Your task to perform on an android device: see tabs open on other devices in the chrome app Image 0: 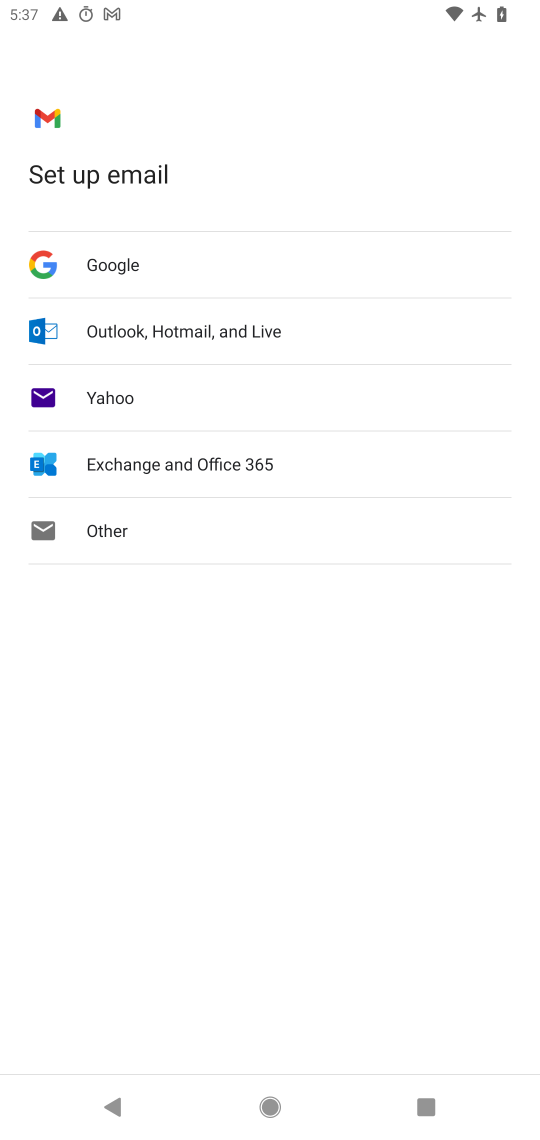
Step 0: press home button
Your task to perform on an android device: see tabs open on other devices in the chrome app Image 1: 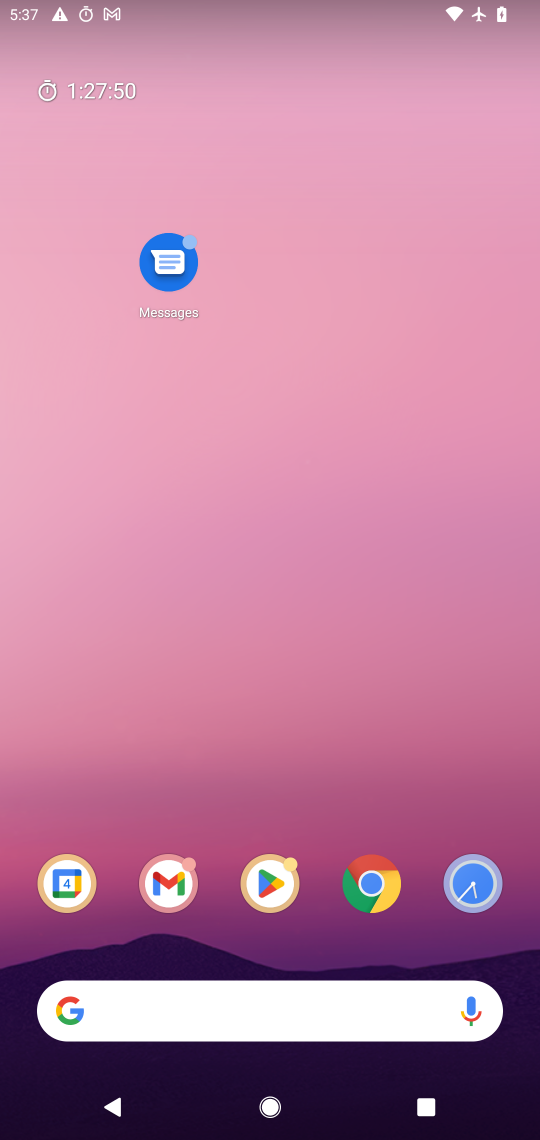
Step 1: click (369, 884)
Your task to perform on an android device: see tabs open on other devices in the chrome app Image 2: 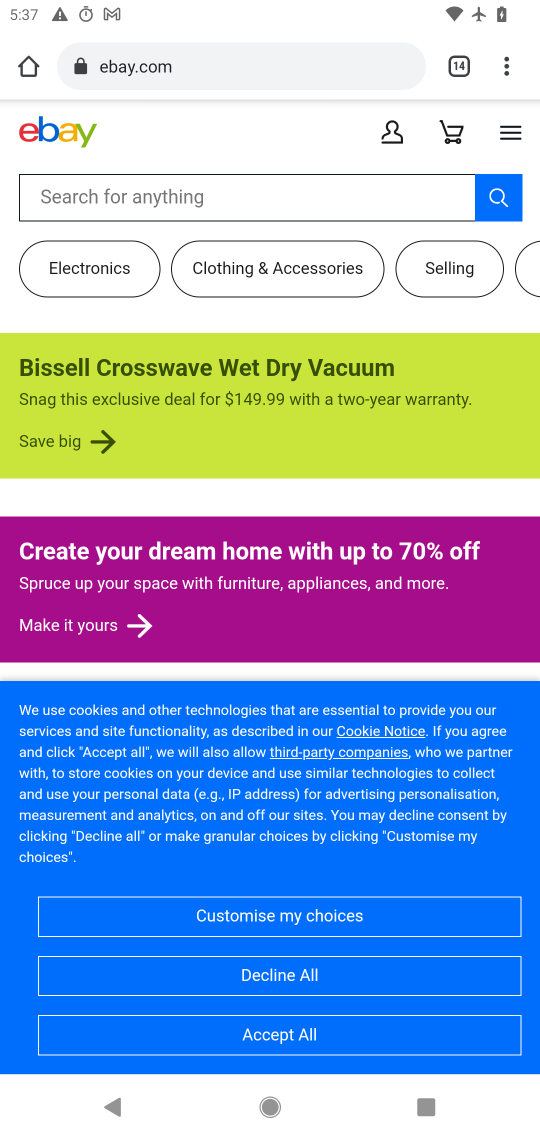
Step 2: click (504, 68)
Your task to perform on an android device: see tabs open on other devices in the chrome app Image 3: 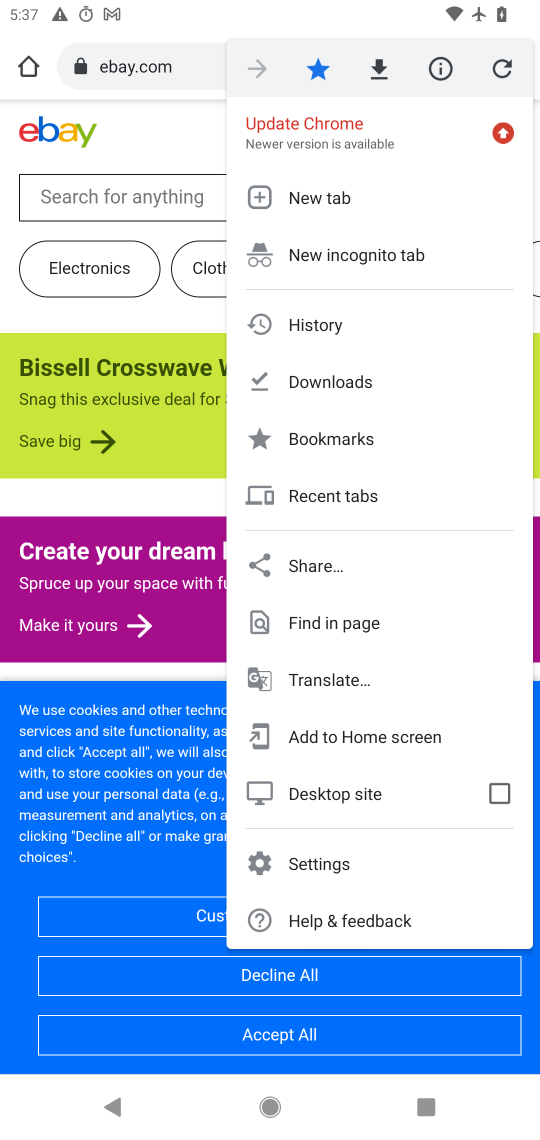
Step 3: click (338, 494)
Your task to perform on an android device: see tabs open on other devices in the chrome app Image 4: 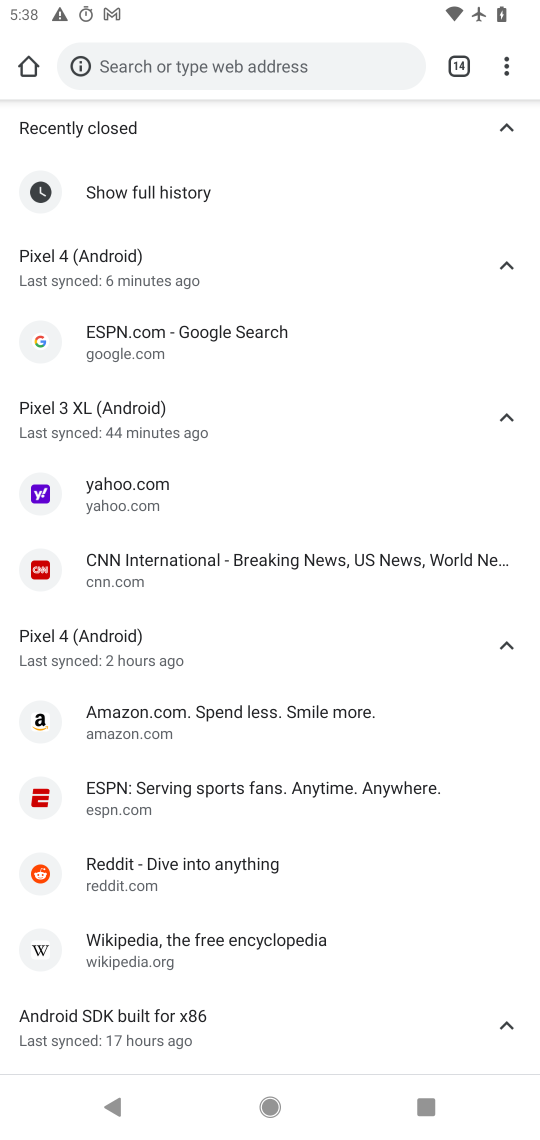
Step 4: task complete